Your task to perform on an android device: Open Maps and search for coffee Image 0: 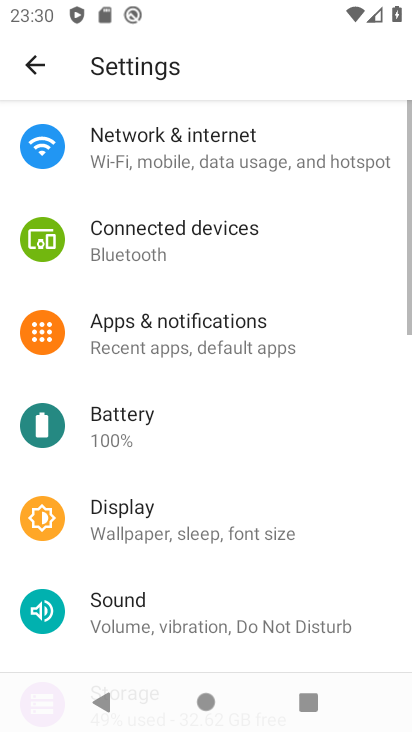
Step 0: press home button
Your task to perform on an android device: Open Maps and search for coffee Image 1: 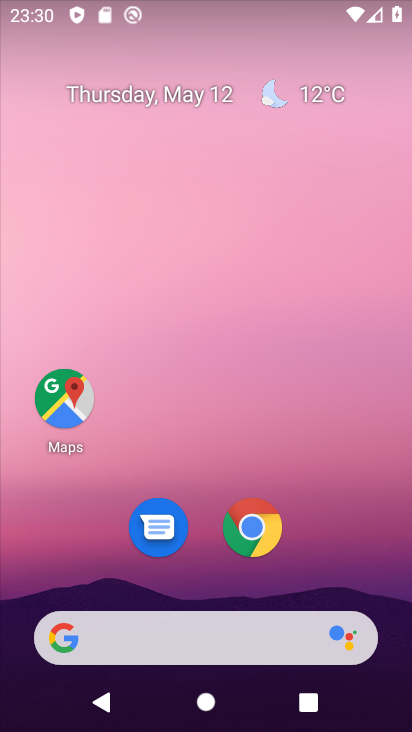
Step 1: click (59, 389)
Your task to perform on an android device: Open Maps and search for coffee Image 2: 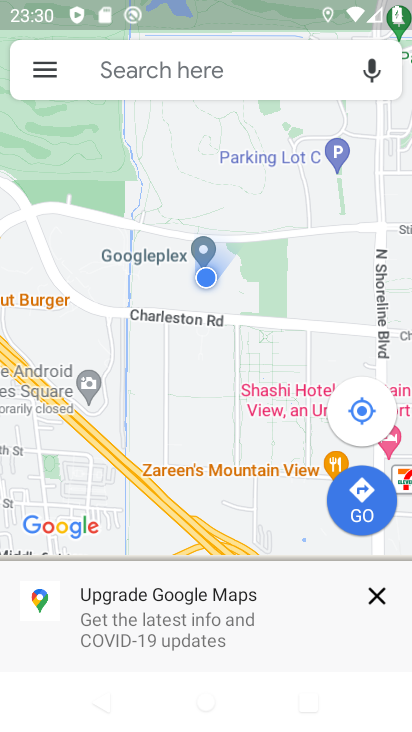
Step 2: click (133, 53)
Your task to perform on an android device: Open Maps and search for coffee Image 3: 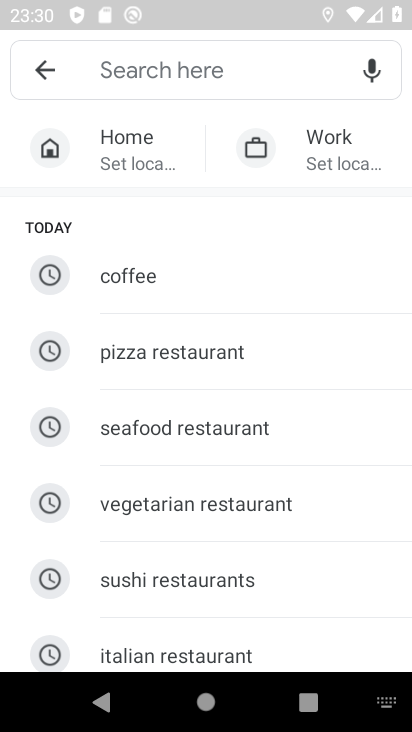
Step 3: click (117, 292)
Your task to perform on an android device: Open Maps and search for coffee Image 4: 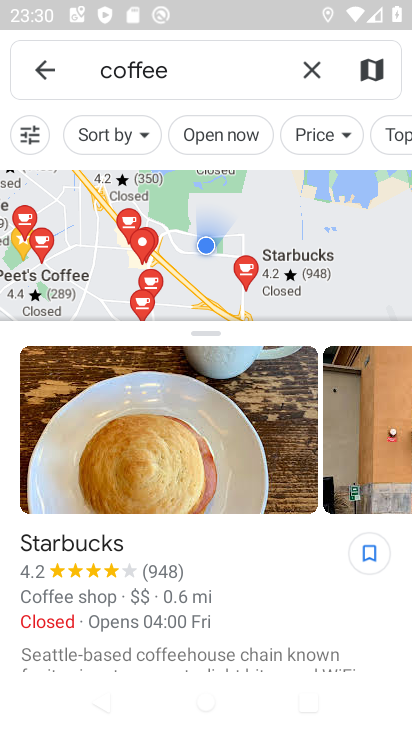
Step 4: task complete